Your task to perform on an android device: check the backup settings in the google photos Image 0: 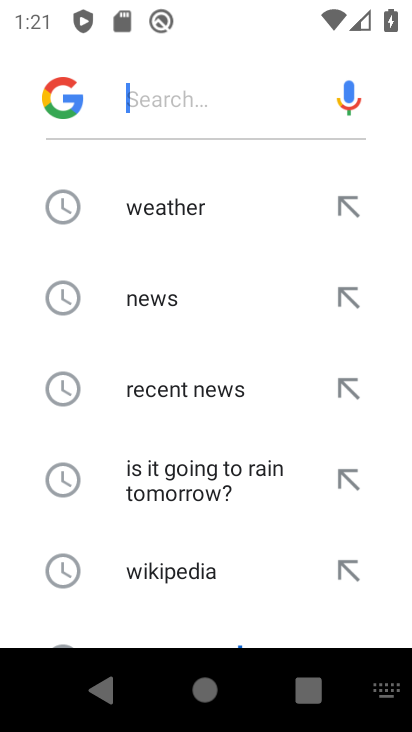
Step 0: press home button
Your task to perform on an android device: check the backup settings in the google photos Image 1: 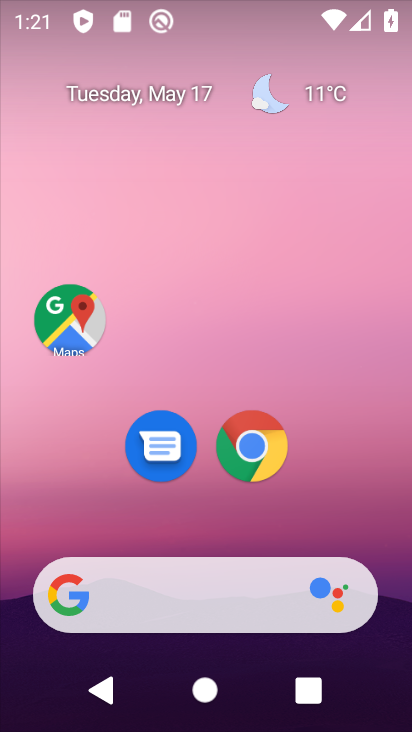
Step 1: drag from (359, 509) to (329, 145)
Your task to perform on an android device: check the backup settings in the google photos Image 2: 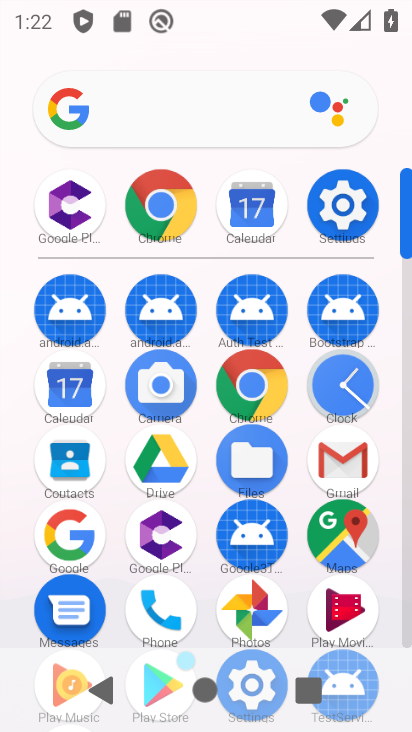
Step 2: click (247, 589)
Your task to perform on an android device: check the backup settings in the google photos Image 3: 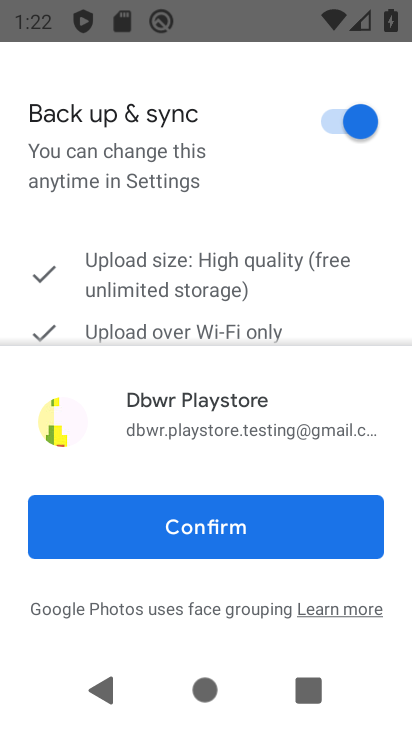
Step 3: click (221, 541)
Your task to perform on an android device: check the backup settings in the google photos Image 4: 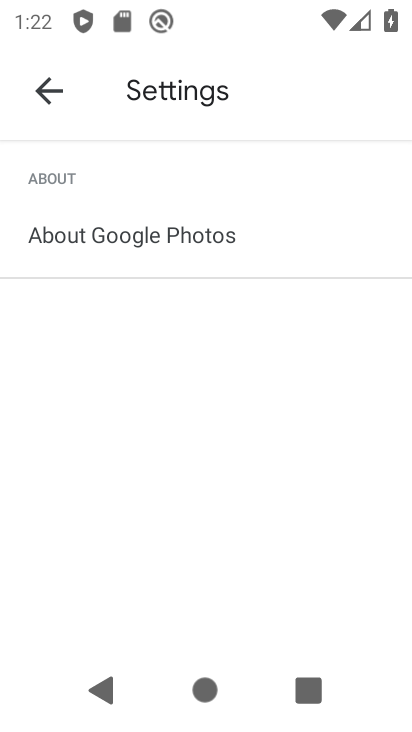
Step 4: click (53, 101)
Your task to perform on an android device: check the backup settings in the google photos Image 5: 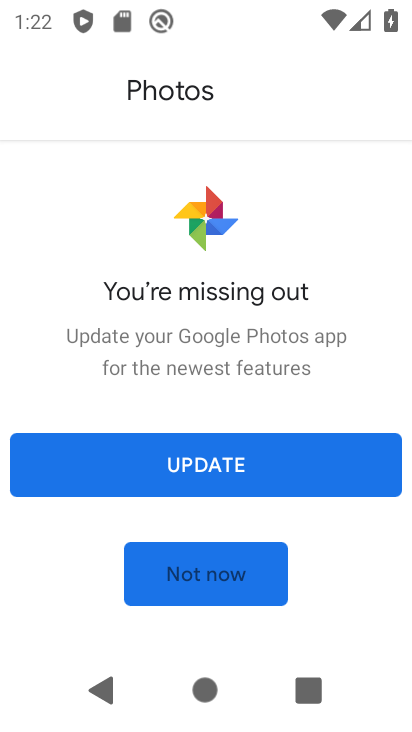
Step 5: click (235, 559)
Your task to perform on an android device: check the backup settings in the google photos Image 6: 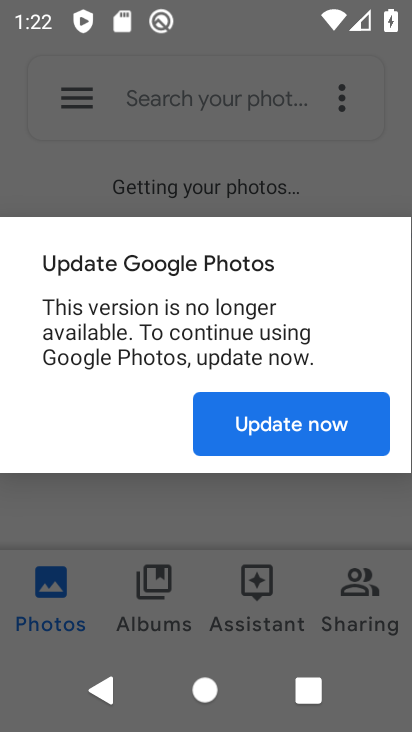
Step 6: click (241, 413)
Your task to perform on an android device: check the backup settings in the google photos Image 7: 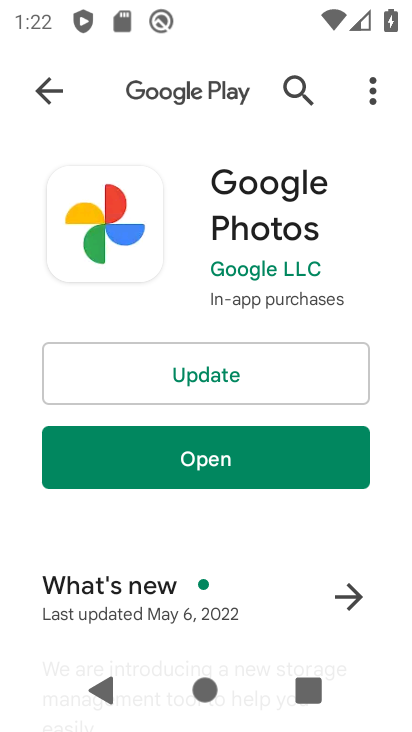
Step 7: click (323, 455)
Your task to perform on an android device: check the backup settings in the google photos Image 8: 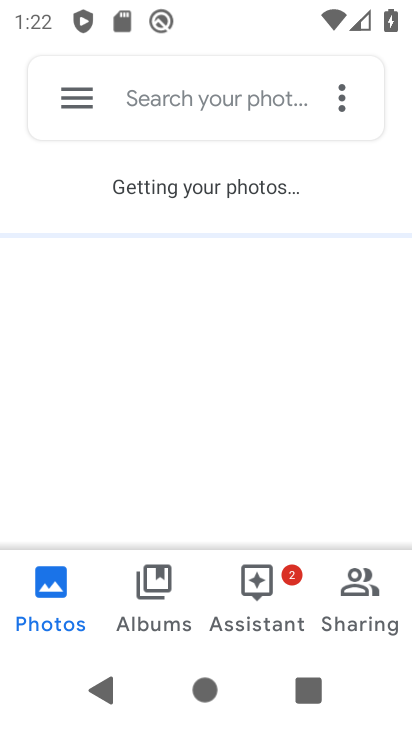
Step 8: click (72, 107)
Your task to perform on an android device: check the backup settings in the google photos Image 9: 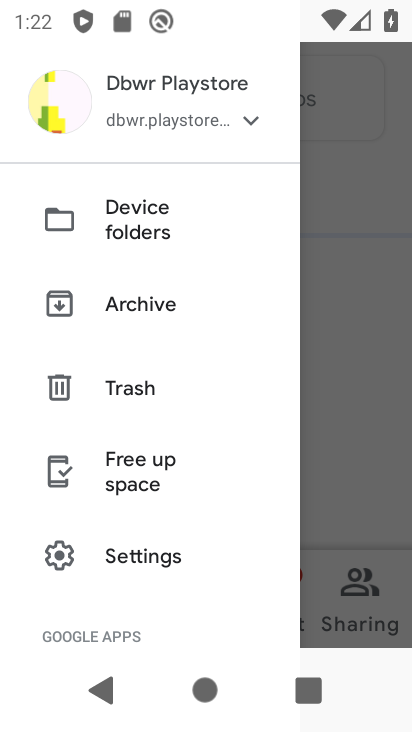
Step 9: click (157, 554)
Your task to perform on an android device: check the backup settings in the google photos Image 10: 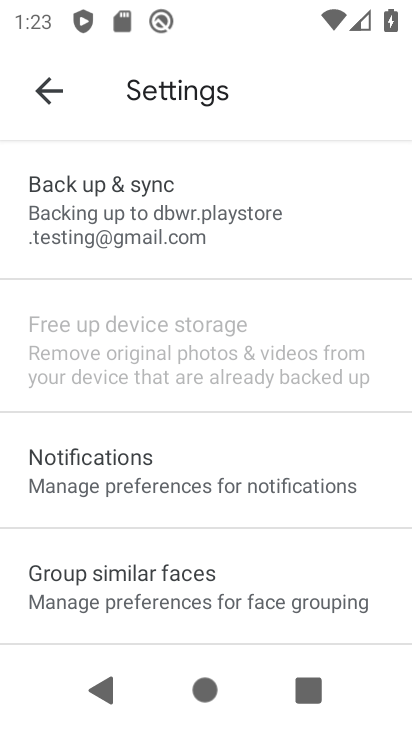
Step 10: click (123, 239)
Your task to perform on an android device: check the backup settings in the google photos Image 11: 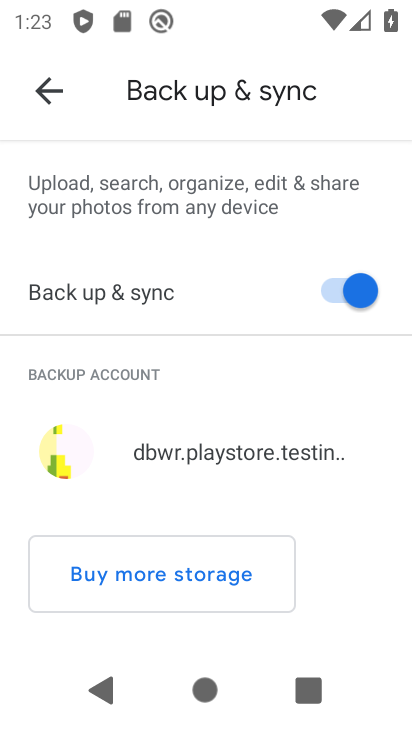
Step 11: task complete